Your task to perform on an android device: turn off picture-in-picture Image 0: 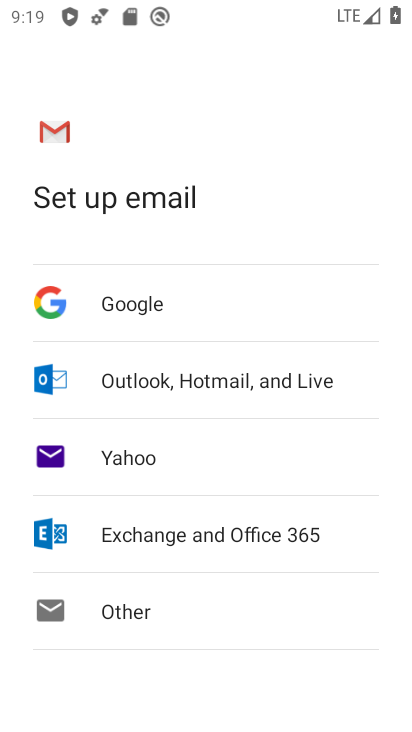
Step 0: press back button
Your task to perform on an android device: turn off picture-in-picture Image 1: 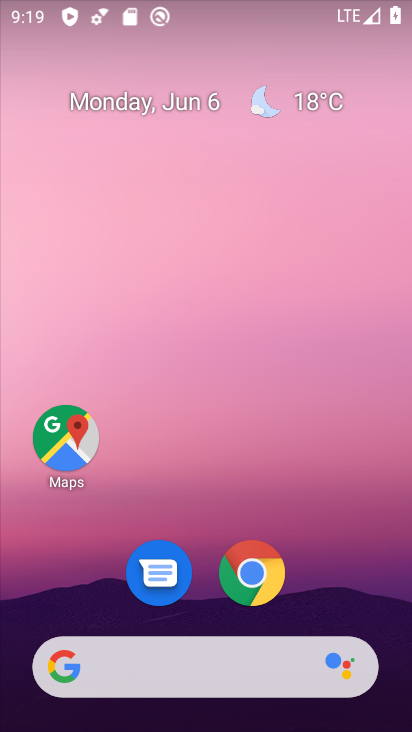
Step 1: drag from (254, 514) to (322, 10)
Your task to perform on an android device: turn off picture-in-picture Image 2: 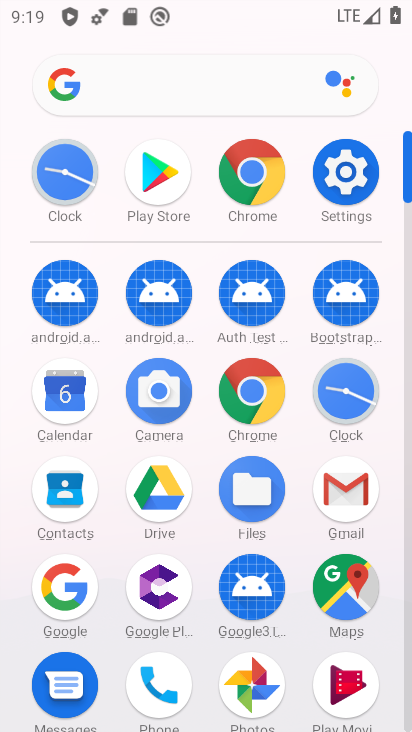
Step 2: click (356, 178)
Your task to perform on an android device: turn off picture-in-picture Image 3: 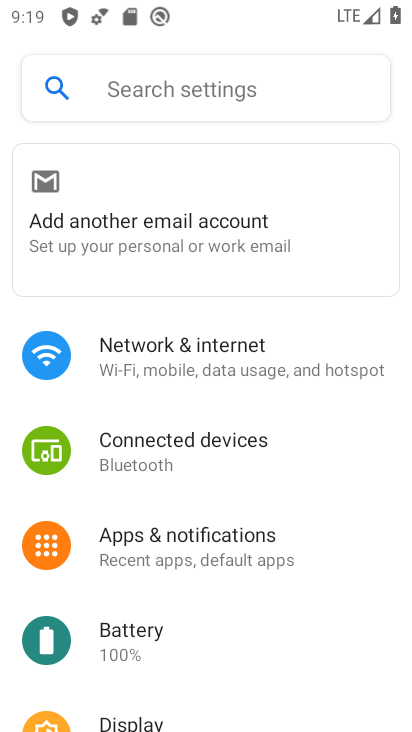
Step 3: click (232, 541)
Your task to perform on an android device: turn off picture-in-picture Image 4: 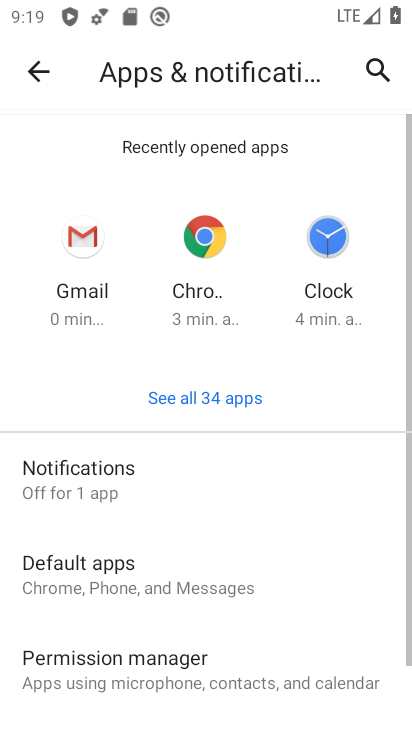
Step 4: click (193, 486)
Your task to perform on an android device: turn off picture-in-picture Image 5: 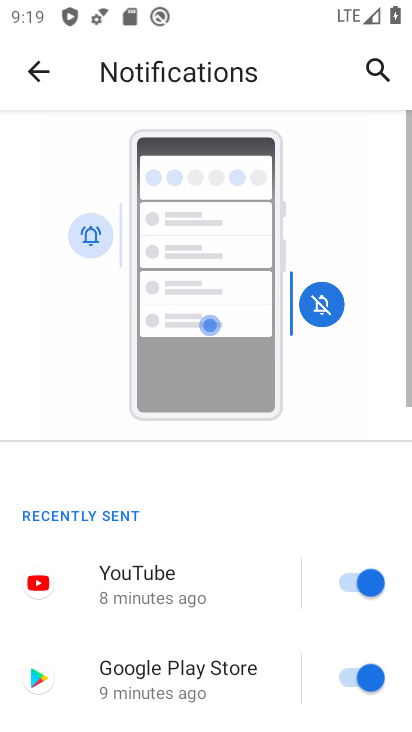
Step 5: drag from (188, 656) to (271, 50)
Your task to perform on an android device: turn off picture-in-picture Image 6: 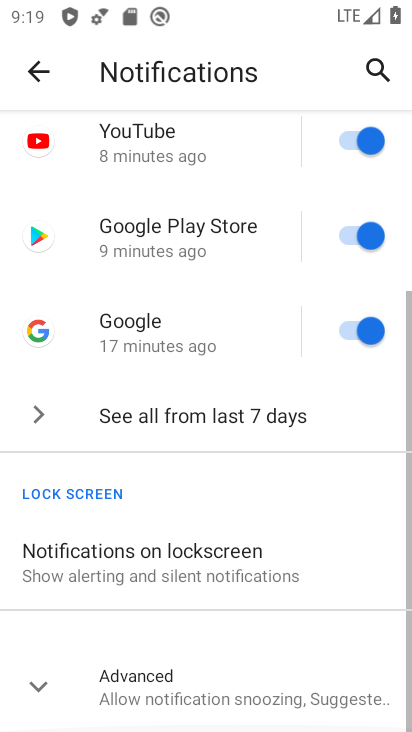
Step 6: drag from (232, 595) to (249, 151)
Your task to perform on an android device: turn off picture-in-picture Image 7: 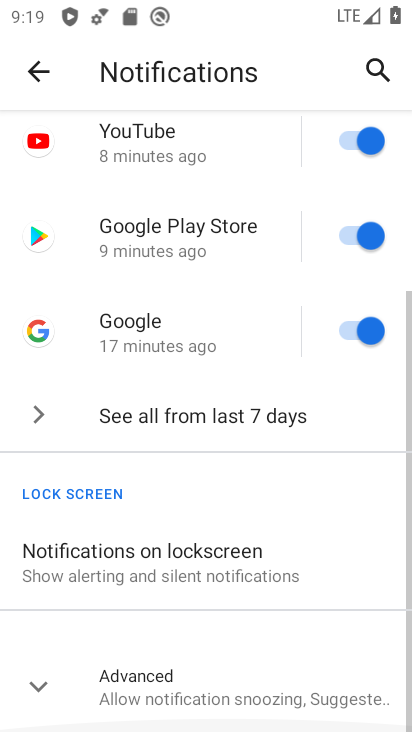
Step 7: click (165, 676)
Your task to perform on an android device: turn off picture-in-picture Image 8: 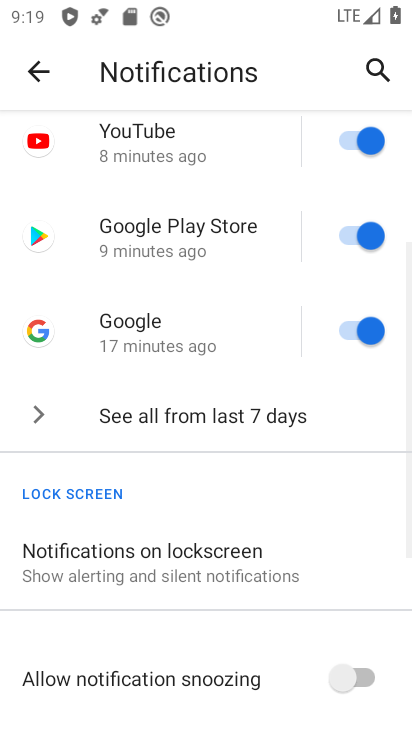
Step 8: drag from (201, 653) to (263, 180)
Your task to perform on an android device: turn off picture-in-picture Image 9: 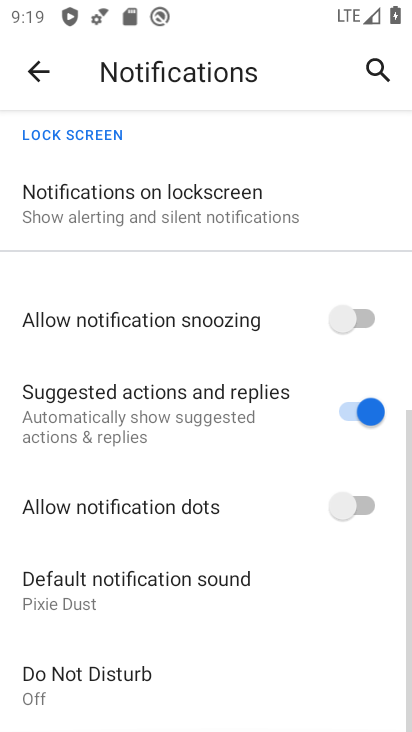
Step 9: drag from (216, 707) to (252, 114)
Your task to perform on an android device: turn off picture-in-picture Image 10: 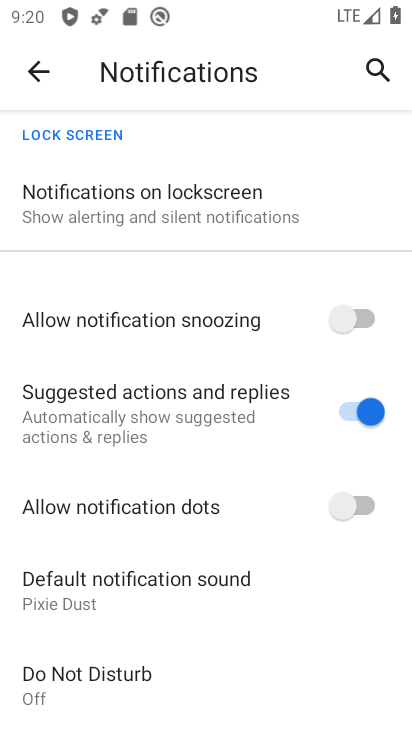
Step 10: drag from (196, 653) to (248, 190)
Your task to perform on an android device: turn off picture-in-picture Image 11: 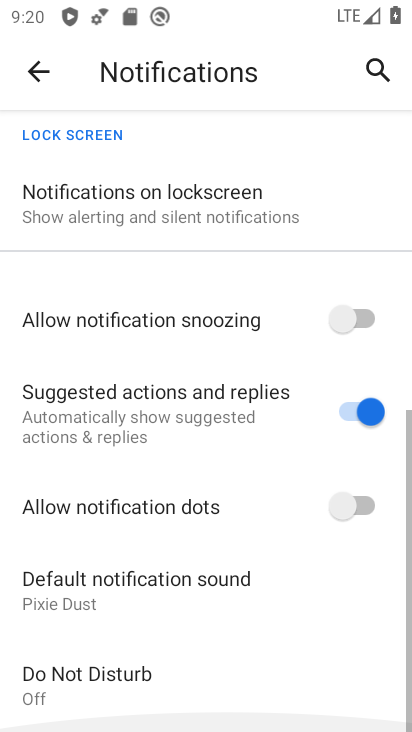
Step 11: drag from (104, 629) to (188, 131)
Your task to perform on an android device: turn off picture-in-picture Image 12: 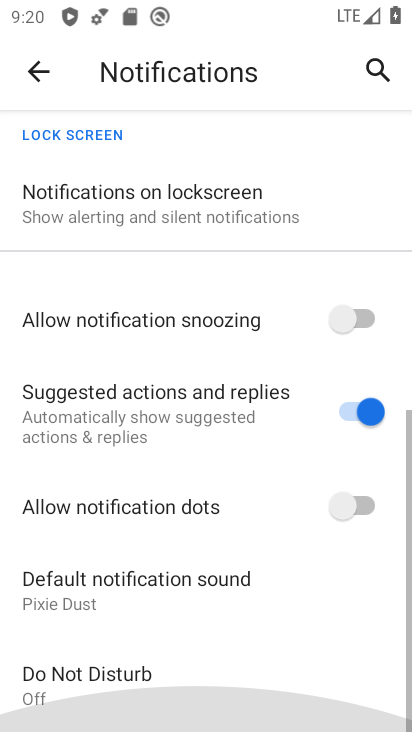
Step 12: drag from (214, 228) to (162, 714)
Your task to perform on an android device: turn off picture-in-picture Image 13: 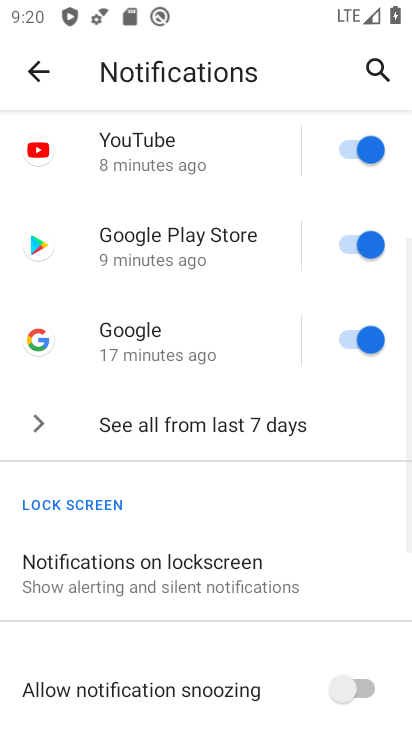
Step 13: click (33, 66)
Your task to perform on an android device: turn off picture-in-picture Image 14: 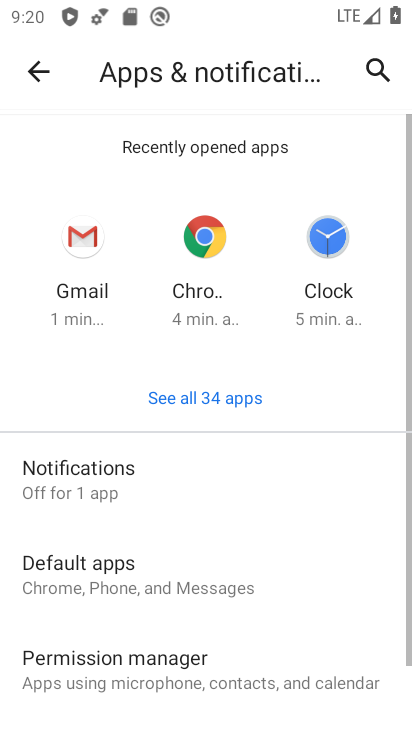
Step 14: drag from (128, 630) to (207, 66)
Your task to perform on an android device: turn off picture-in-picture Image 15: 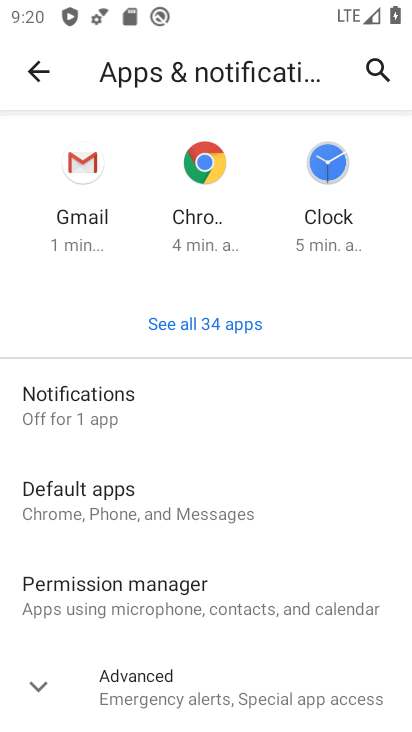
Step 15: drag from (143, 656) to (219, 16)
Your task to perform on an android device: turn off picture-in-picture Image 16: 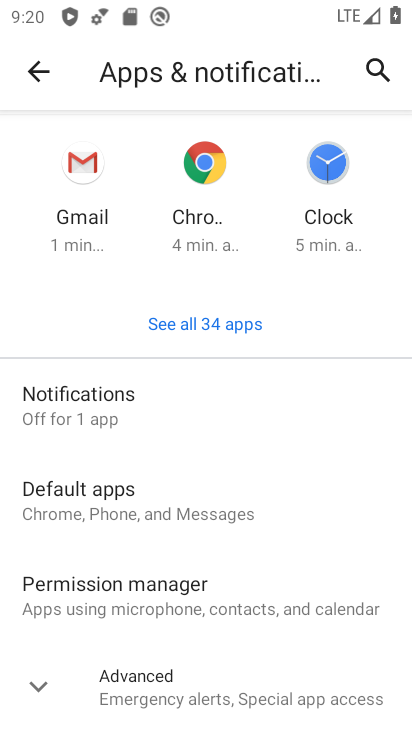
Step 16: click (129, 698)
Your task to perform on an android device: turn off picture-in-picture Image 17: 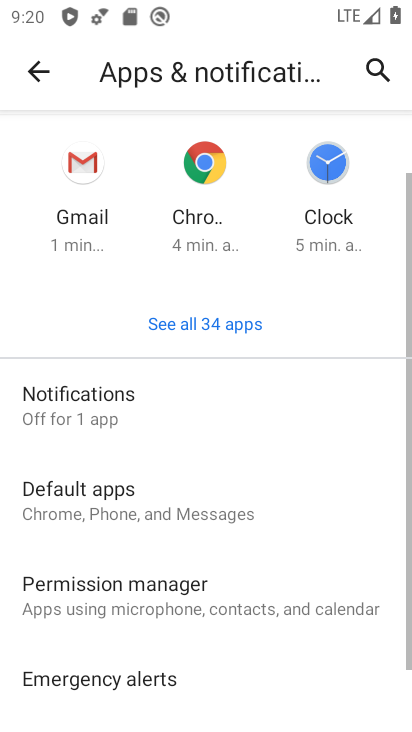
Step 17: drag from (142, 613) to (258, 82)
Your task to perform on an android device: turn off picture-in-picture Image 18: 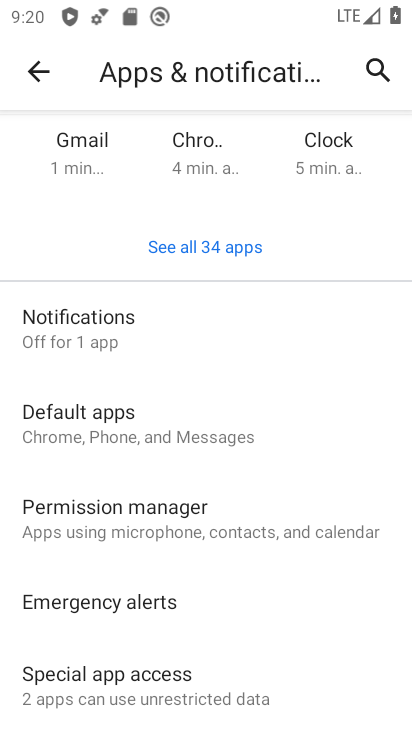
Step 18: click (125, 690)
Your task to perform on an android device: turn off picture-in-picture Image 19: 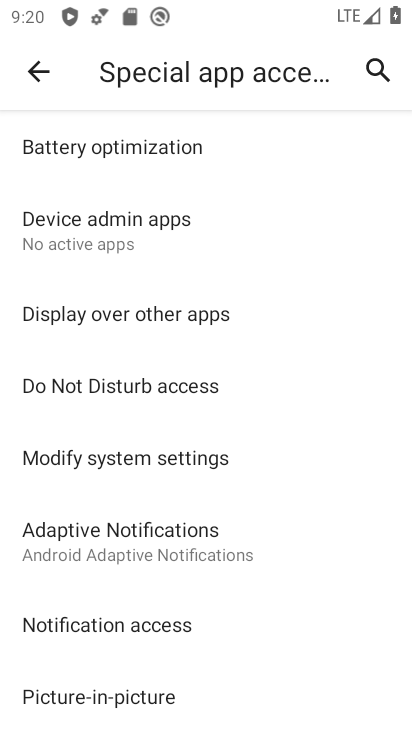
Step 19: drag from (102, 649) to (213, 251)
Your task to perform on an android device: turn off picture-in-picture Image 20: 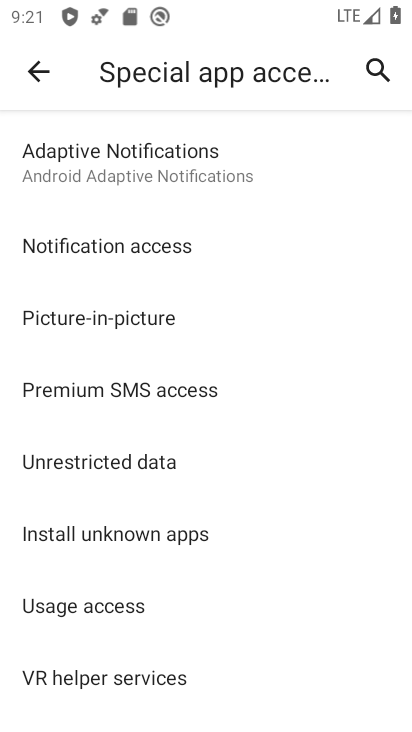
Step 20: click (96, 317)
Your task to perform on an android device: turn off picture-in-picture Image 21: 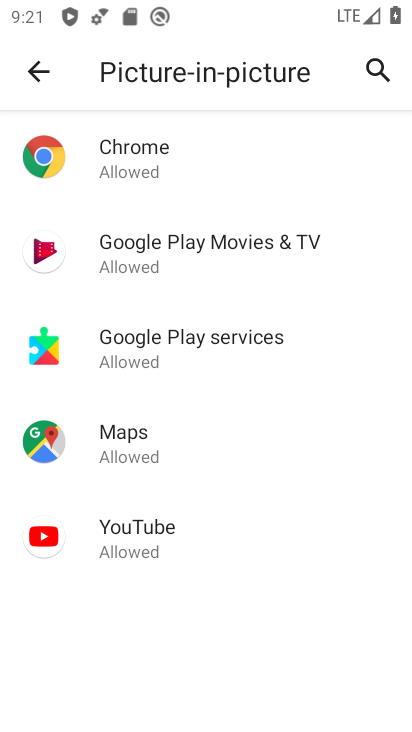
Step 21: click (150, 165)
Your task to perform on an android device: turn off picture-in-picture Image 22: 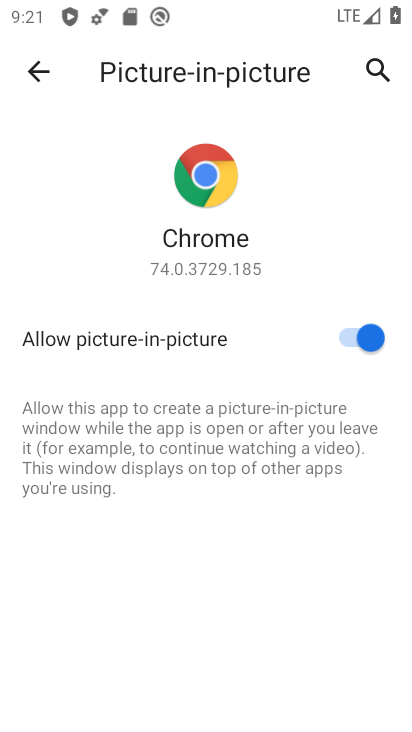
Step 22: click (365, 342)
Your task to perform on an android device: turn off picture-in-picture Image 23: 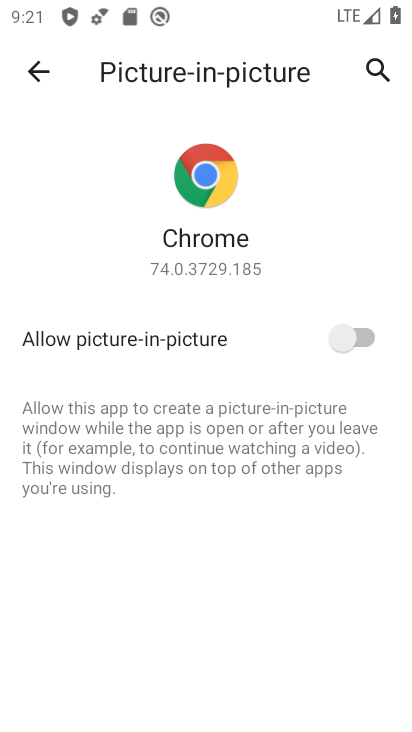
Step 23: task complete